Your task to perform on an android device: Set the phone to "Do not disturb". Image 0: 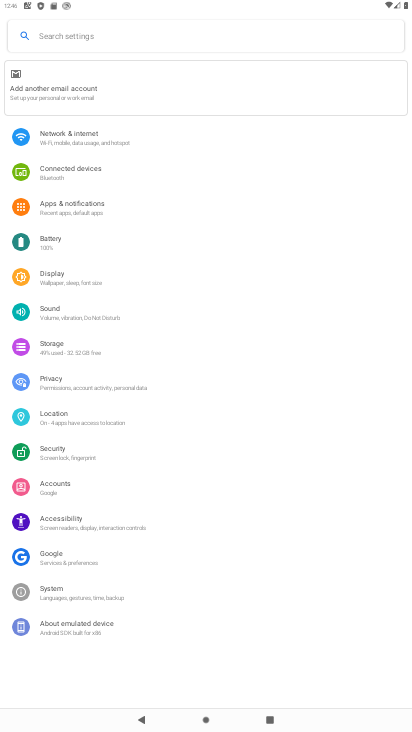
Step 0: click (96, 318)
Your task to perform on an android device: Set the phone to "Do not disturb". Image 1: 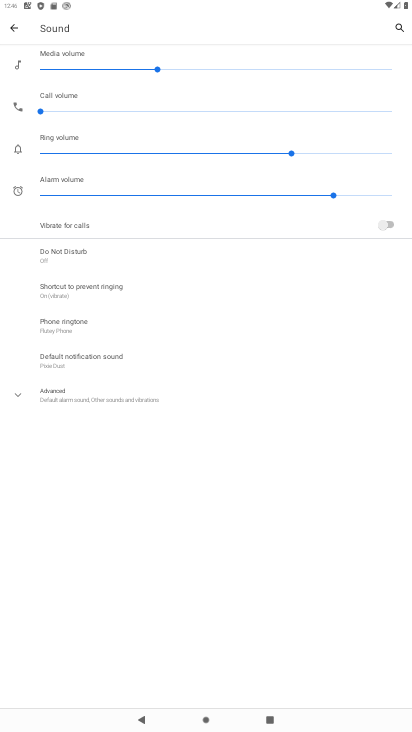
Step 1: click (124, 364)
Your task to perform on an android device: Set the phone to "Do not disturb". Image 2: 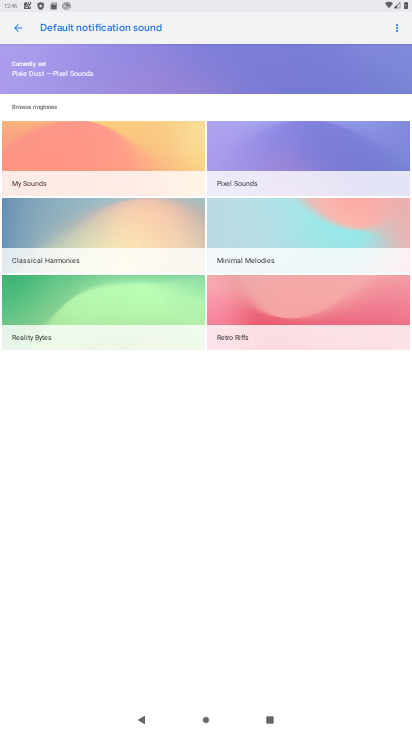
Step 2: click (9, 33)
Your task to perform on an android device: Set the phone to "Do not disturb". Image 3: 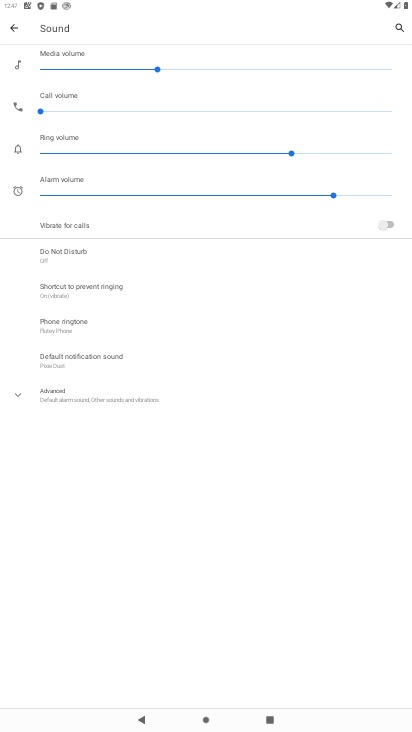
Step 3: click (125, 255)
Your task to perform on an android device: Set the phone to "Do not disturb". Image 4: 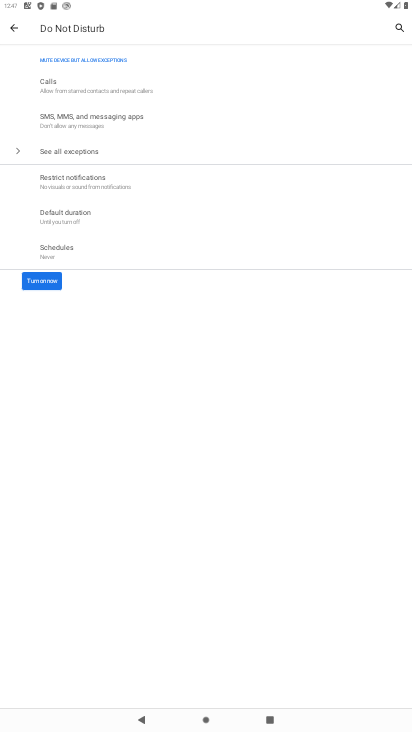
Step 4: click (125, 267)
Your task to perform on an android device: Set the phone to "Do not disturb". Image 5: 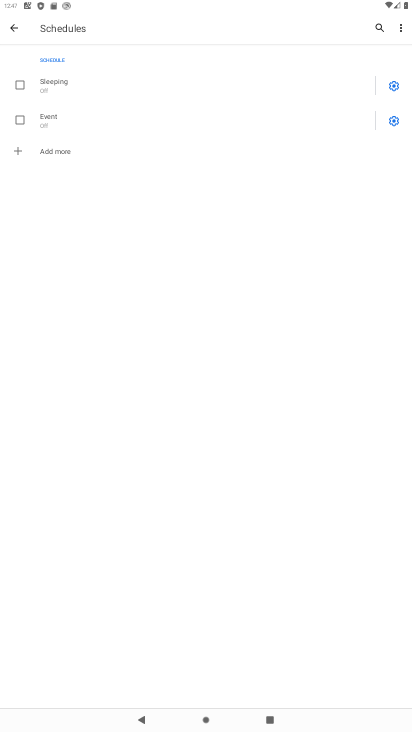
Step 5: task complete